Your task to perform on an android device: toggle priority inbox in the gmail app Image 0: 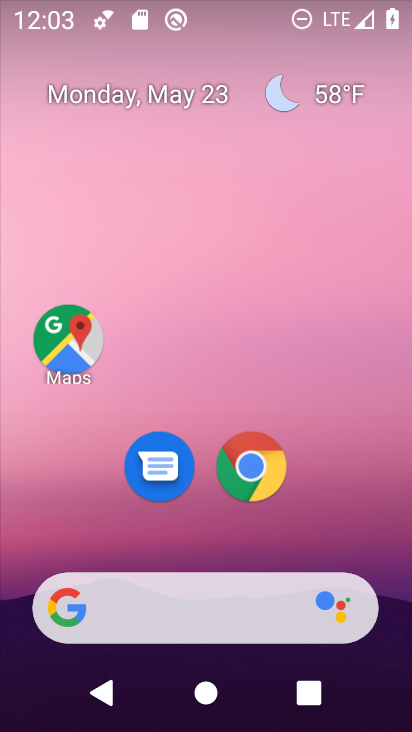
Step 0: drag from (208, 506) to (191, 41)
Your task to perform on an android device: toggle priority inbox in the gmail app Image 1: 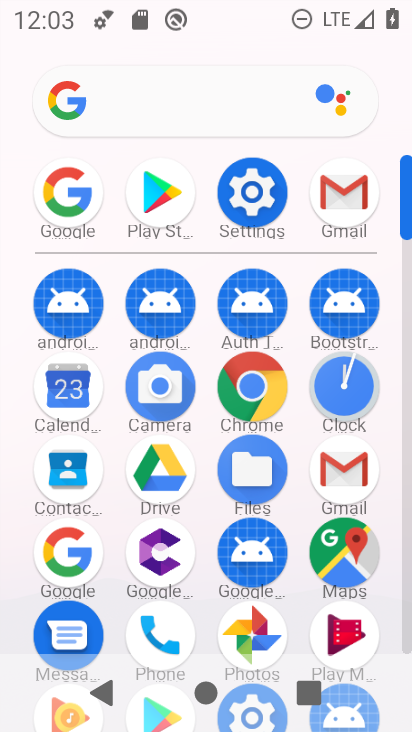
Step 1: click (338, 207)
Your task to perform on an android device: toggle priority inbox in the gmail app Image 2: 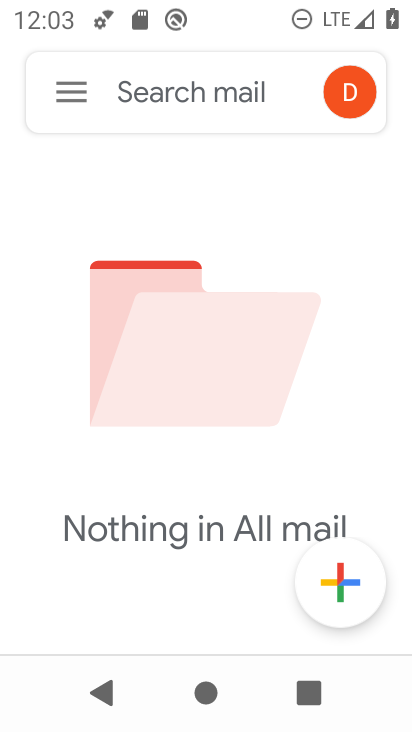
Step 2: click (62, 101)
Your task to perform on an android device: toggle priority inbox in the gmail app Image 3: 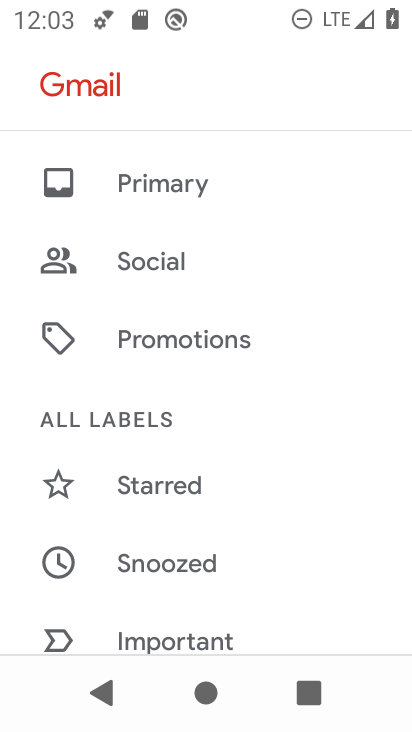
Step 3: drag from (260, 571) to (319, 106)
Your task to perform on an android device: toggle priority inbox in the gmail app Image 4: 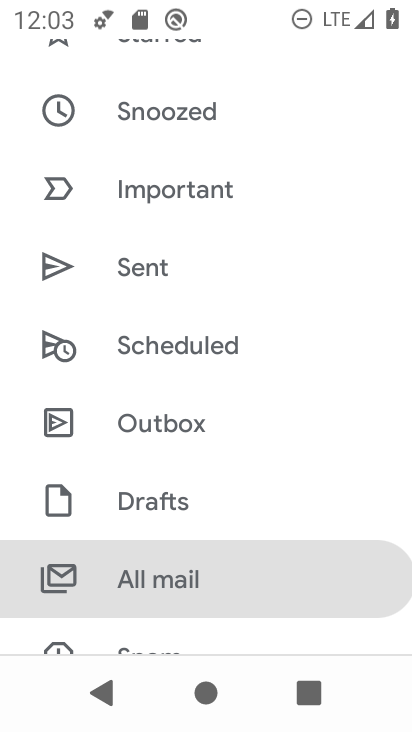
Step 4: drag from (187, 532) to (181, 126)
Your task to perform on an android device: toggle priority inbox in the gmail app Image 5: 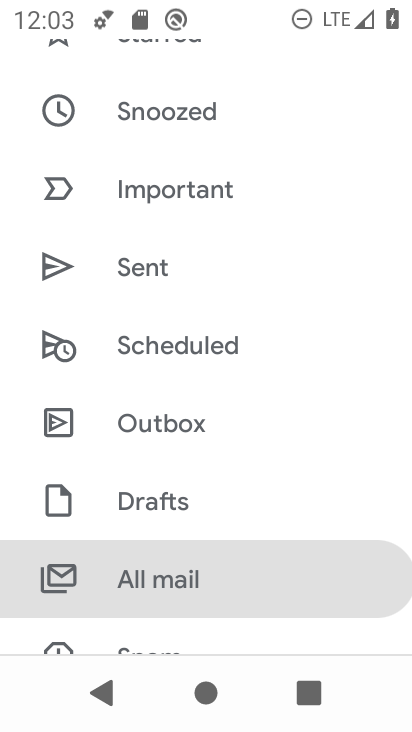
Step 5: drag from (171, 461) to (187, 90)
Your task to perform on an android device: toggle priority inbox in the gmail app Image 6: 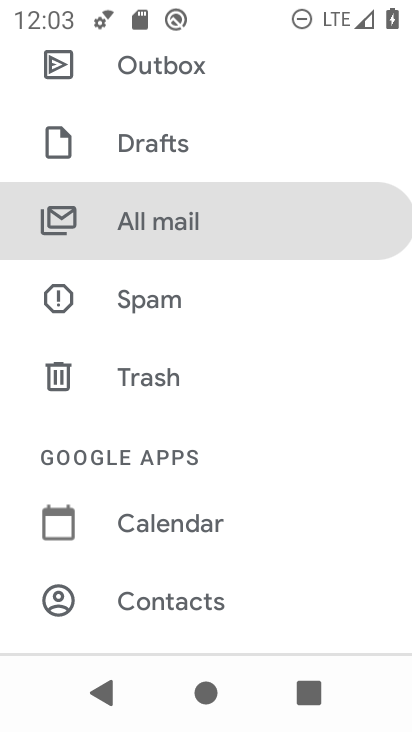
Step 6: drag from (184, 609) to (198, 82)
Your task to perform on an android device: toggle priority inbox in the gmail app Image 7: 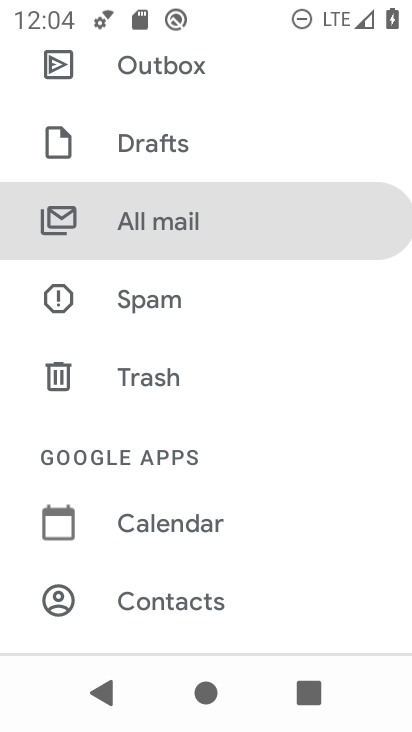
Step 7: drag from (201, 592) to (203, 261)
Your task to perform on an android device: toggle priority inbox in the gmail app Image 8: 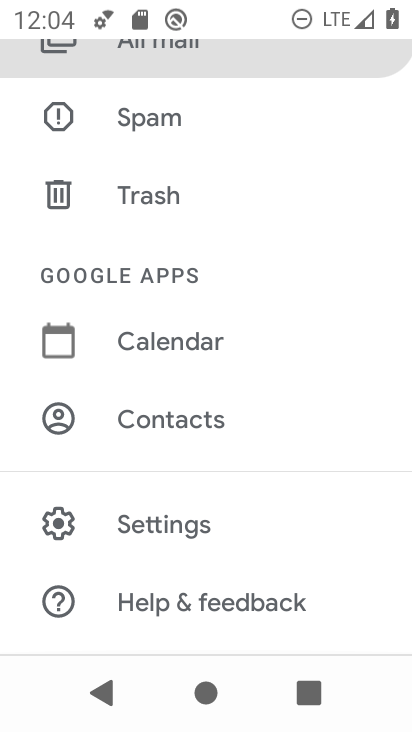
Step 8: click (134, 483)
Your task to perform on an android device: toggle priority inbox in the gmail app Image 9: 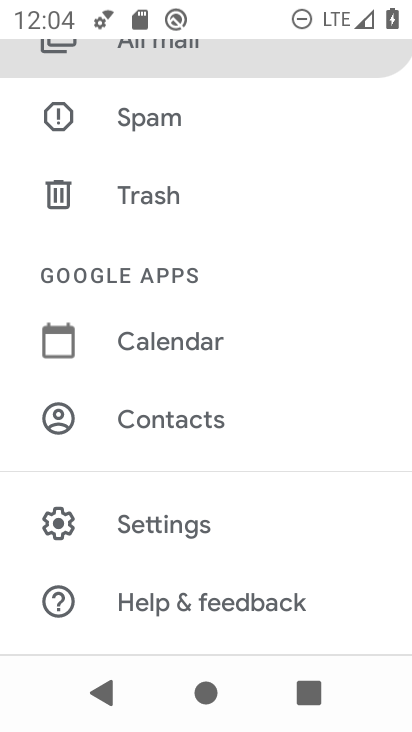
Step 9: click (198, 524)
Your task to perform on an android device: toggle priority inbox in the gmail app Image 10: 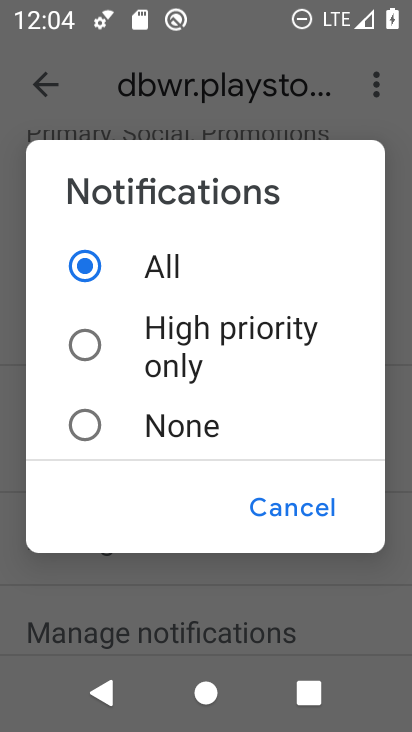
Step 10: click (300, 497)
Your task to perform on an android device: toggle priority inbox in the gmail app Image 11: 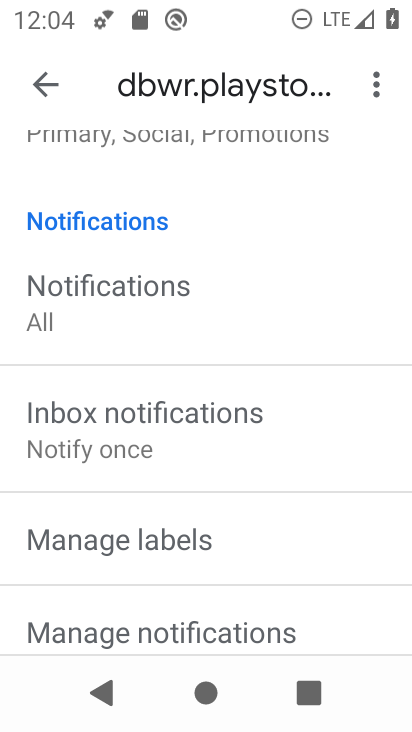
Step 11: drag from (141, 252) to (176, 582)
Your task to perform on an android device: toggle priority inbox in the gmail app Image 12: 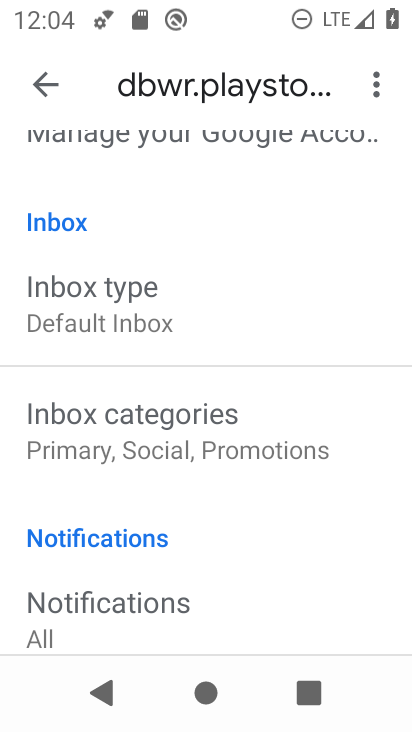
Step 12: click (106, 330)
Your task to perform on an android device: toggle priority inbox in the gmail app Image 13: 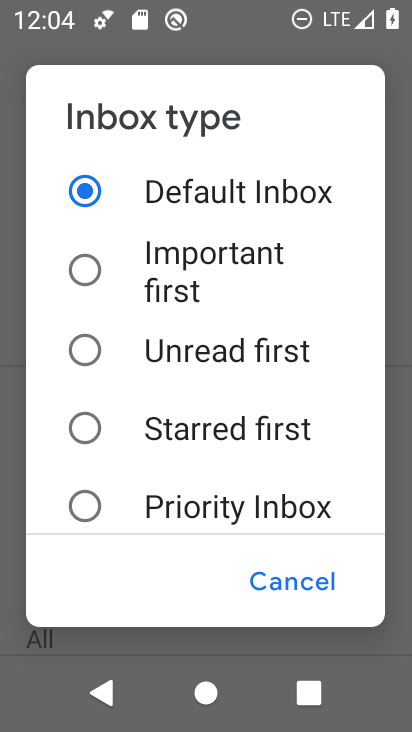
Step 13: click (96, 508)
Your task to perform on an android device: toggle priority inbox in the gmail app Image 14: 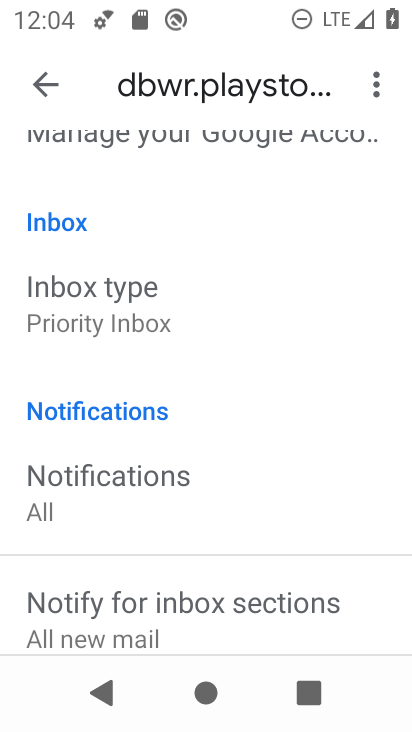
Step 14: task complete